Your task to perform on an android device: turn off location history Image 0: 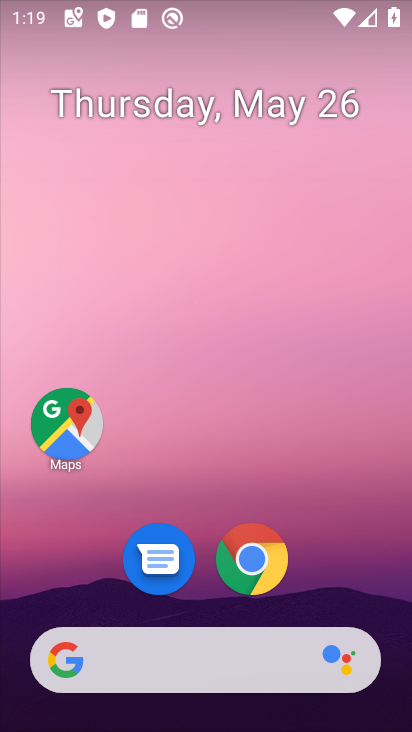
Step 0: press home button
Your task to perform on an android device: turn off location history Image 1: 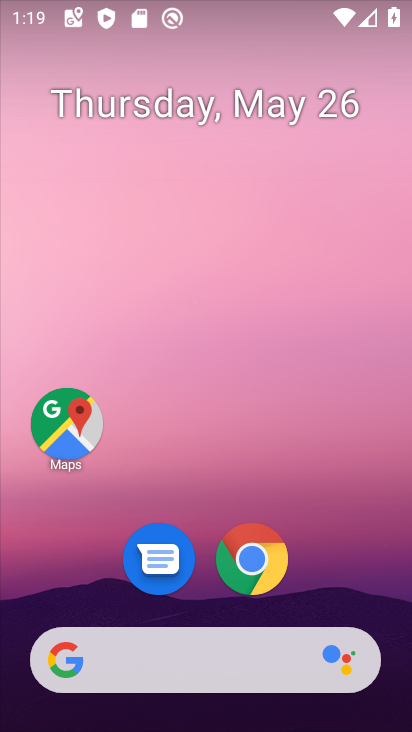
Step 1: drag from (121, 656) to (338, 73)
Your task to perform on an android device: turn off location history Image 2: 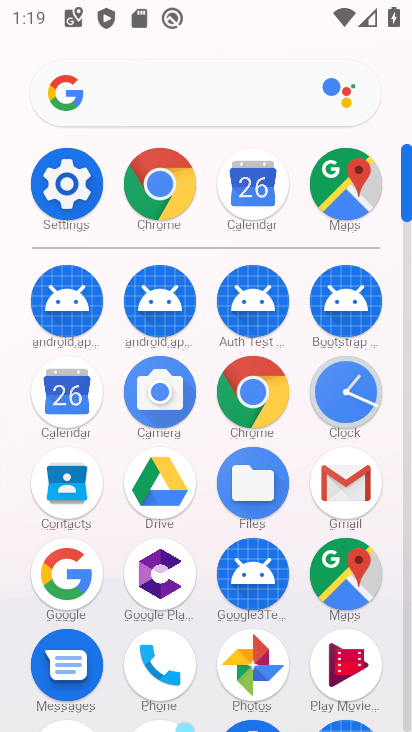
Step 2: click (348, 191)
Your task to perform on an android device: turn off location history Image 3: 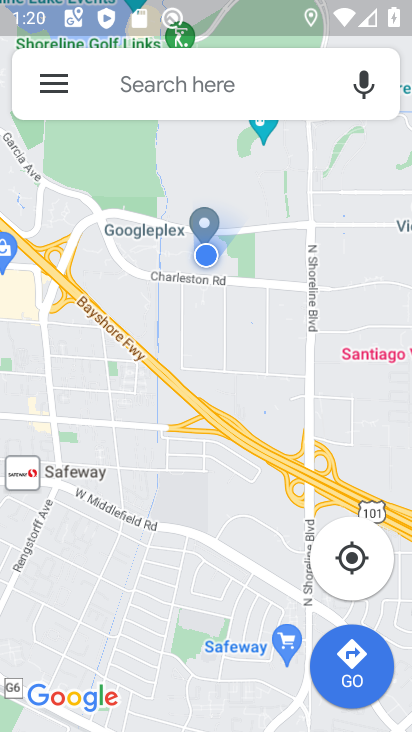
Step 3: click (53, 84)
Your task to perform on an android device: turn off location history Image 4: 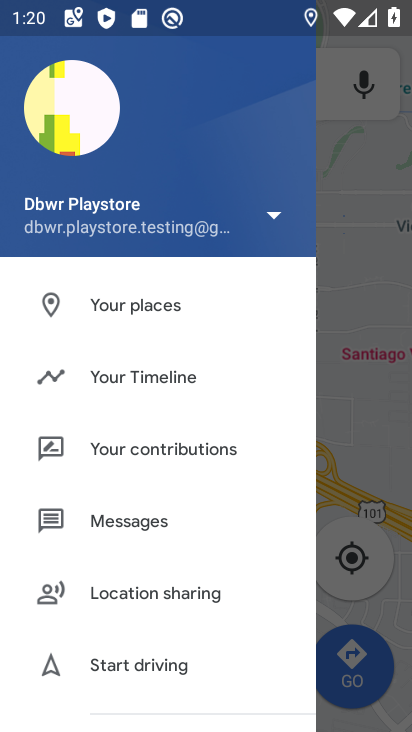
Step 4: click (122, 378)
Your task to perform on an android device: turn off location history Image 5: 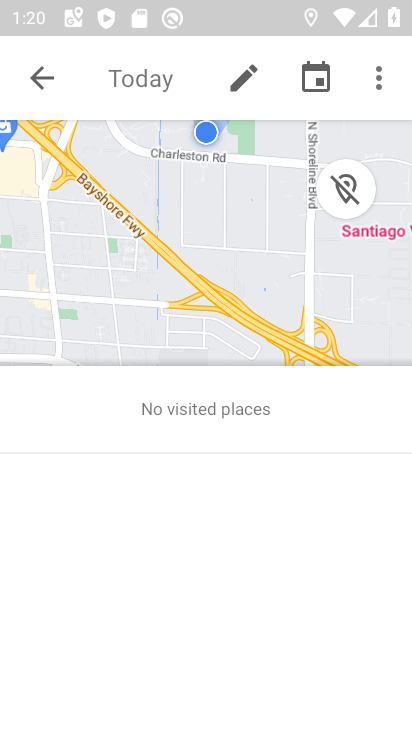
Step 5: click (378, 80)
Your task to perform on an android device: turn off location history Image 6: 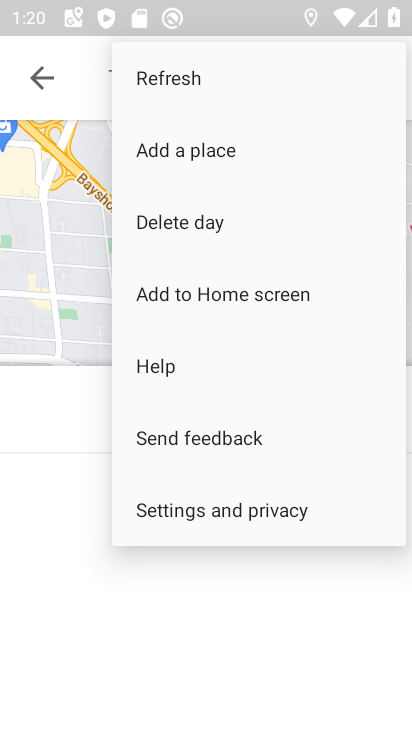
Step 6: click (218, 511)
Your task to perform on an android device: turn off location history Image 7: 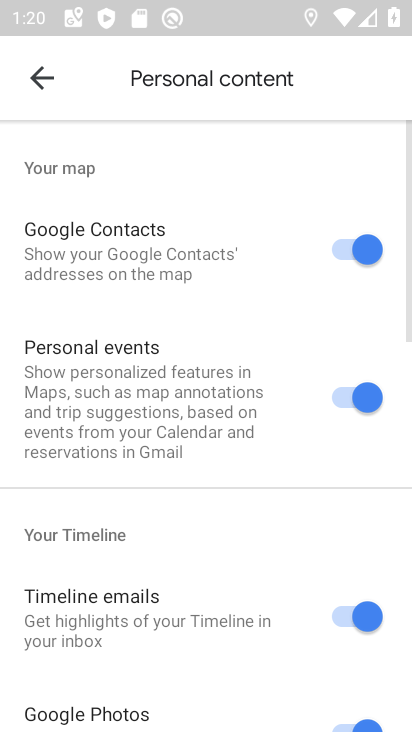
Step 7: drag from (223, 607) to (344, 118)
Your task to perform on an android device: turn off location history Image 8: 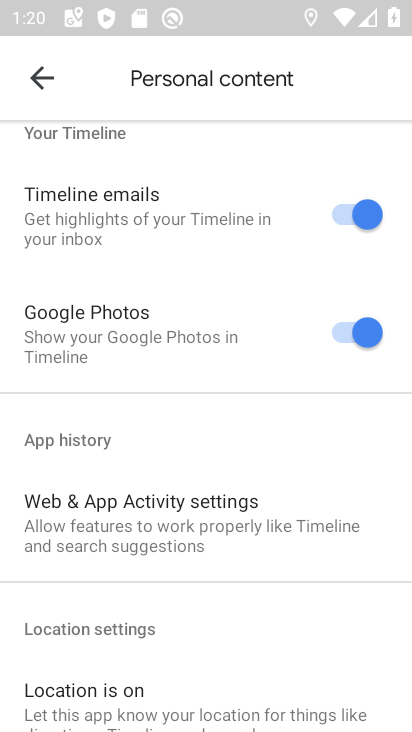
Step 8: drag from (193, 621) to (324, 104)
Your task to perform on an android device: turn off location history Image 9: 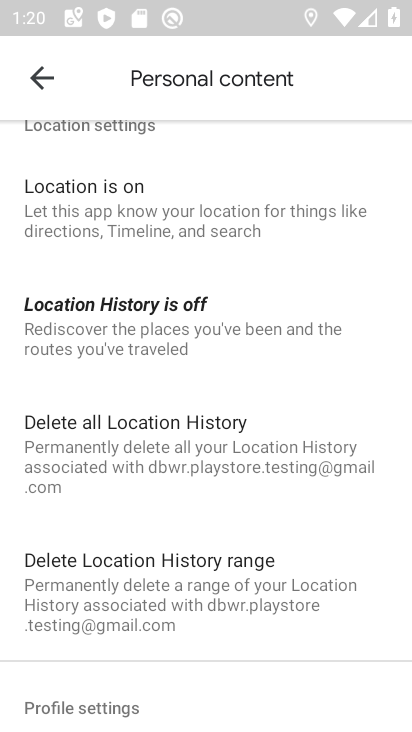
Step 9: click (160, 322)
Your task to perform on an android device: turn off location history Image 10: 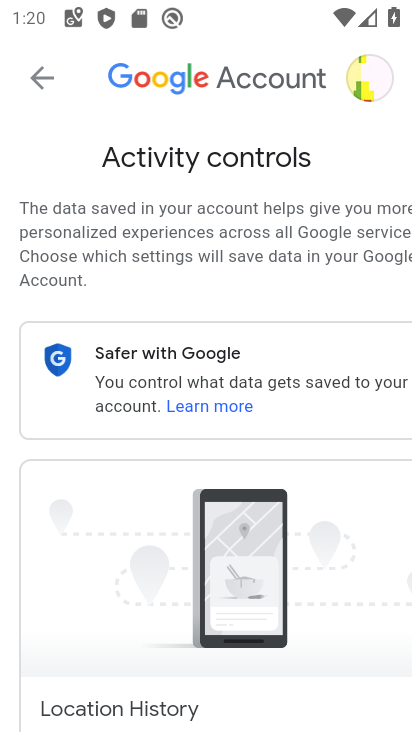
Step 10: task complete